Your task to perform on an android device: Search for vegetarian restaurants on Maps Image 0: 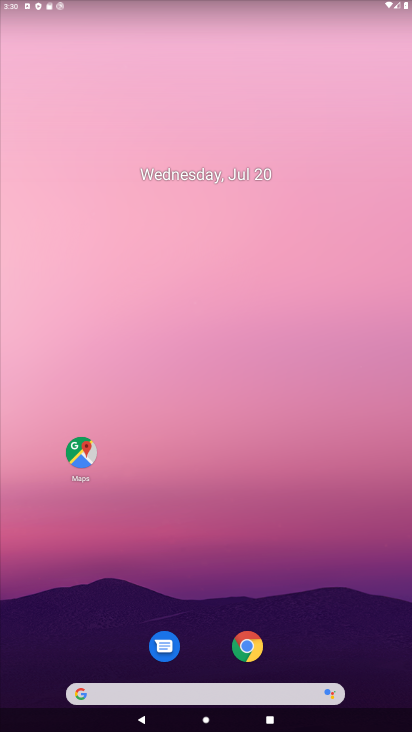
Step 0: click (76, 454)
Your task to perform on an android device: Search for vegetarian restaurants on Maps Image 1: 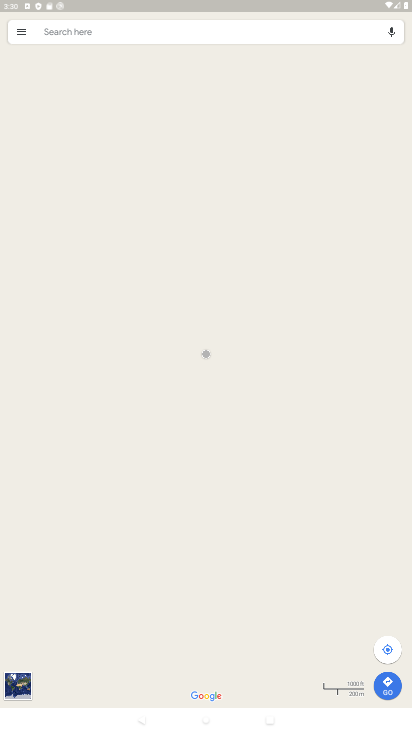
Step 1: click (169, 28)
Your task to perform on an android device: Search for vegetarian restaurants on Maps Image 2: 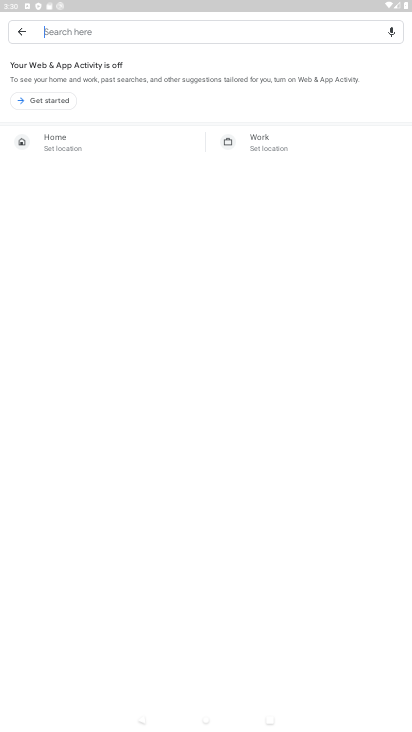
Step 2: click (169, 28)
Your task to perform on an android device: Search for vegetarian restaurants on Maps Image 3: 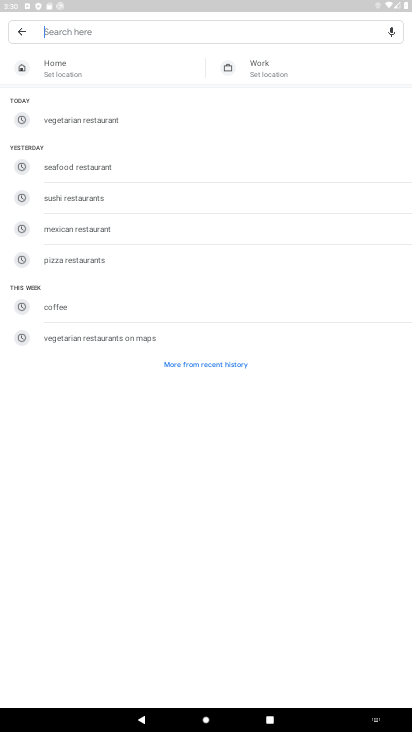
Step 3: type "vegetarian restaurants"
Your task to perform on an android device: Search for vegetarian restaurants on Maps Image 4: 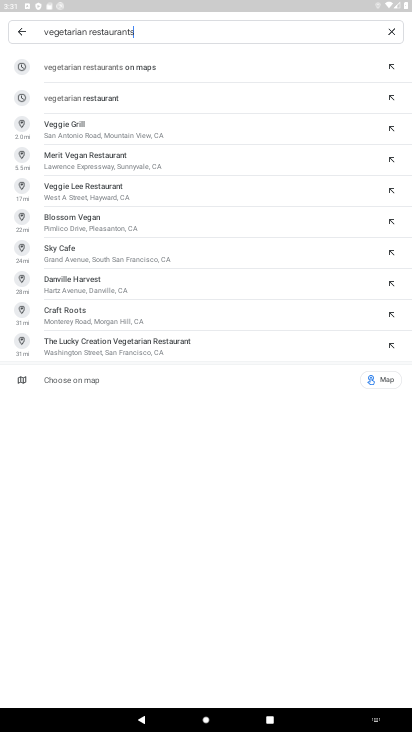
Step 4: click (65, 105)
Your task to perform on an android device: Search for vegetarian restaurants on Maps Image 5: 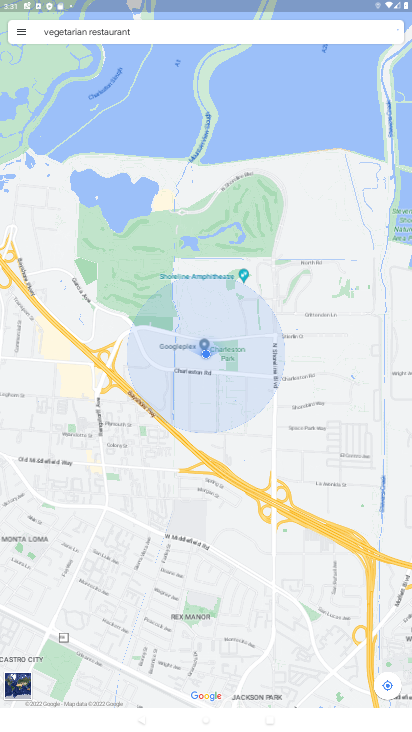
Step 5: task complete